Your task to perform on an android device: allow cookies in the chrome app Image 0: 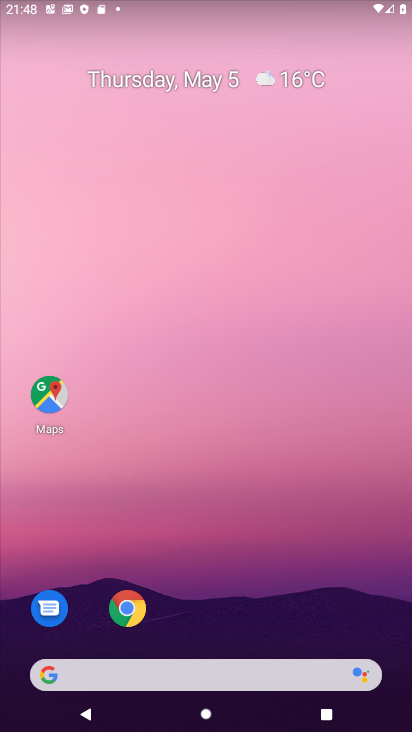
Step 0: drag from (213, 615) to (281, 245)
Your task to perform on an android device: allow cookies in the chrome app Image 1: 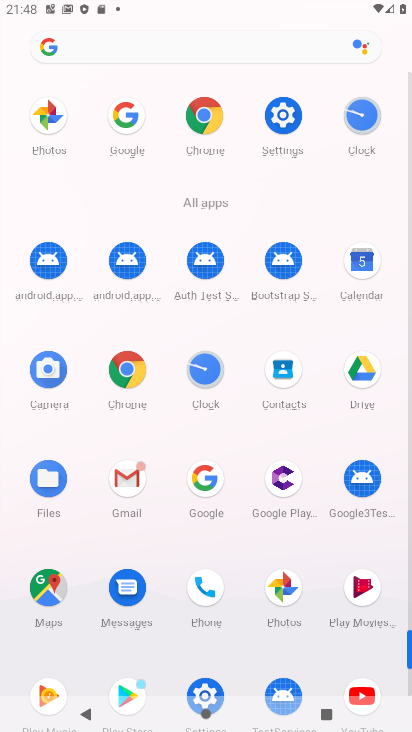
Step 1: click (137, 373)
Your task to perform on an android device: allow cookies in the chrome app Image 2: 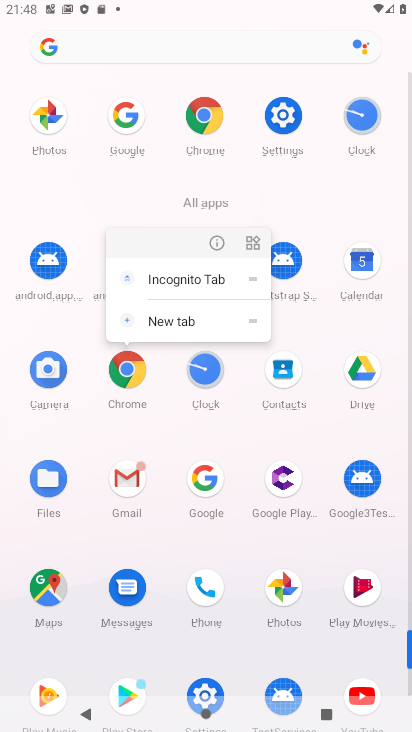
Step 2: click (121, 374)
Your task to perform on an android device: allow cookies in the chrome app Image 3: 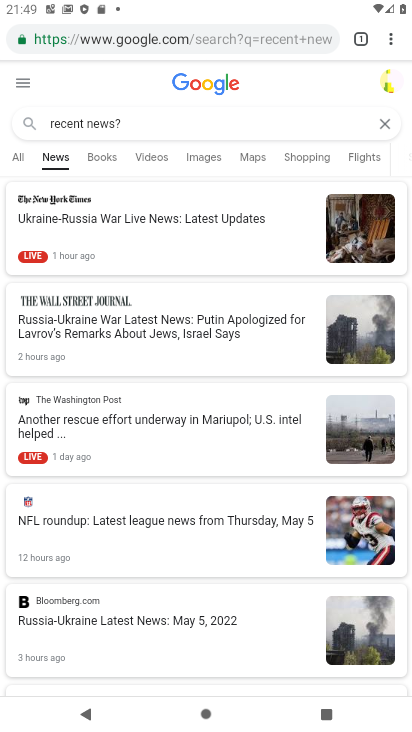
Step 3: drag from (392, 36) to (249, 435)
Your task to perform on an android device: allow cookies in the chrome app Image 4: 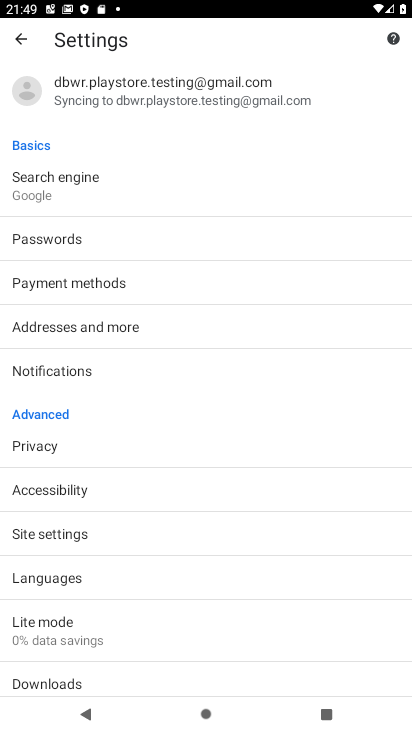
Step 4: click (35, 443)
Your task to perform on an android device: allow cookies in the chrome app Image 5: 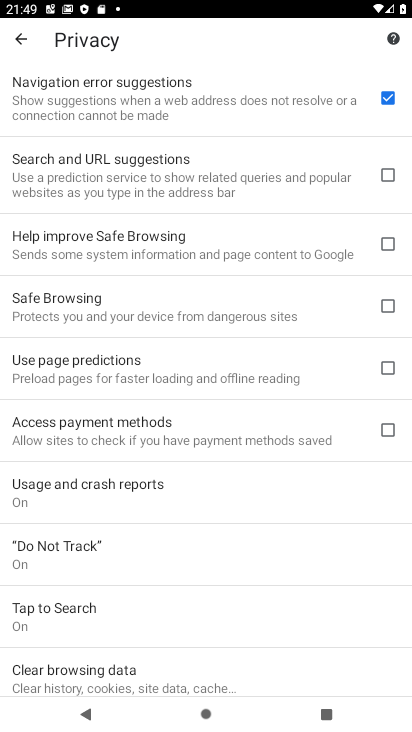
Step 5: click (14, 38)
Your task to perform on an android device: allow cookies in the chrome app Image 6: 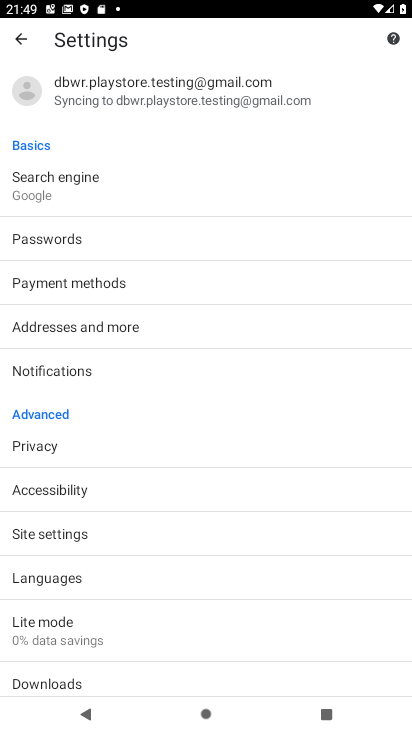
Step 6: click (51, 527)
Your task to perform on an android device: allow cookies in the chrome app Image 7: 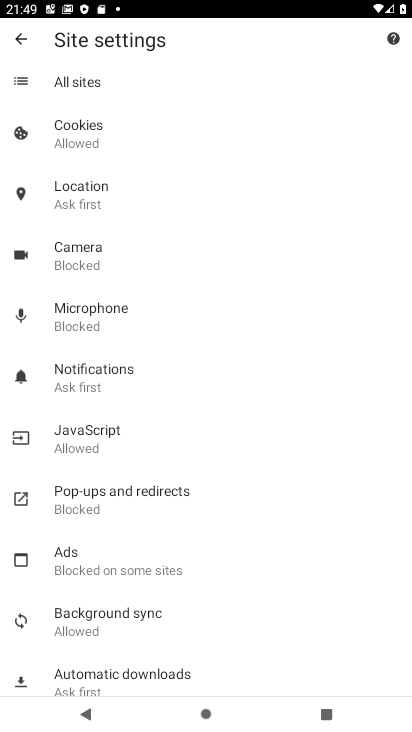
Step 7: click (68, 141)
Your task to perform on an android device: allow cookies in the chrome app Image 8: 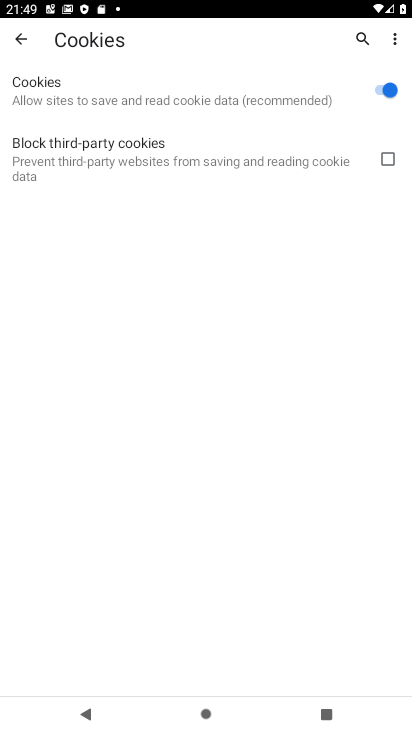
Step 8: task complete